Your task to perform on an android device: Open network settings Image 0: 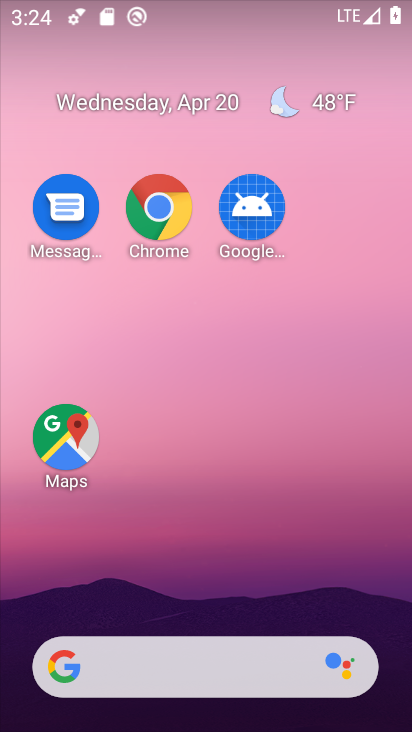
Step 0: drag from (337, 383) to (338, 338)
Your task to perform on an android device: Open network settings Image 1: 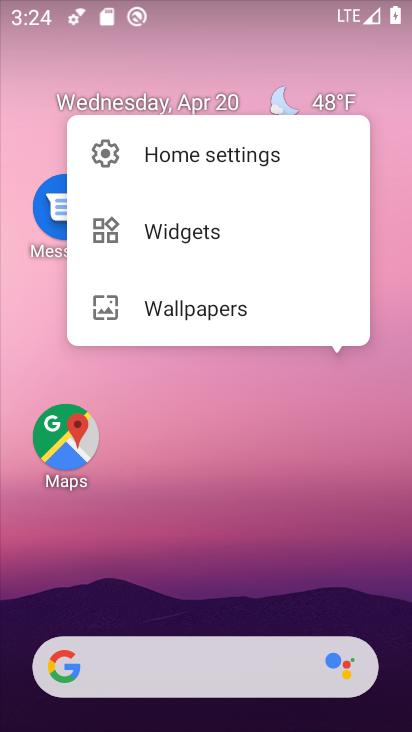
Step 1: click (307, 572)
Your task to perform on an android device: Open network settings Image 2: 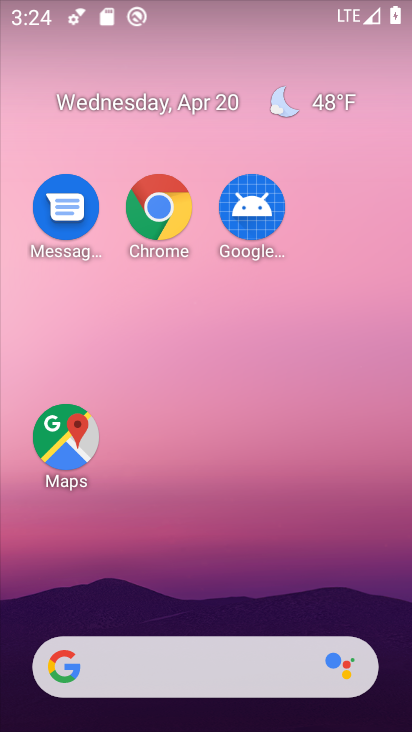
Step 2: drag from (290, 616) to (290, 161)
Your task to perform on an android device: Open network settings Image 3: 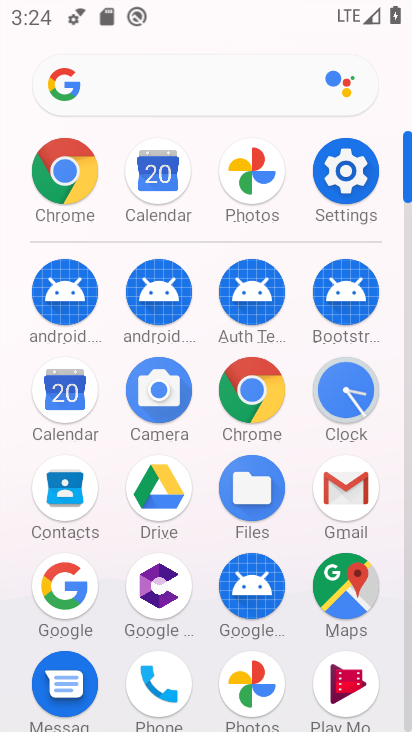
Step 3: drag from (252, 512) to (285, 133)
Your task to perform on an android device: Open network settings Image 4: 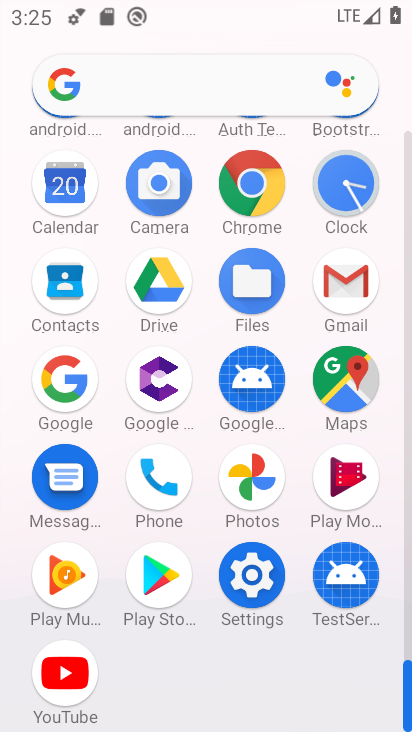
Step 4: click (406, 175)
Your task to perform on an android device: Open network settings Image 5: 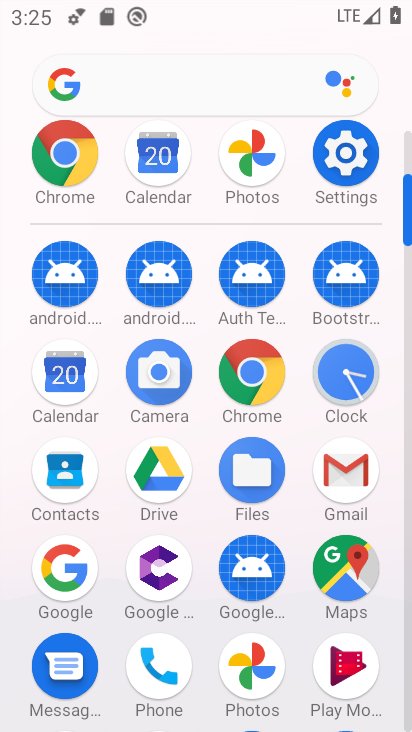
Step 5: click (351, 161)
Your task to perform on an android device: Open network settings Image 6: 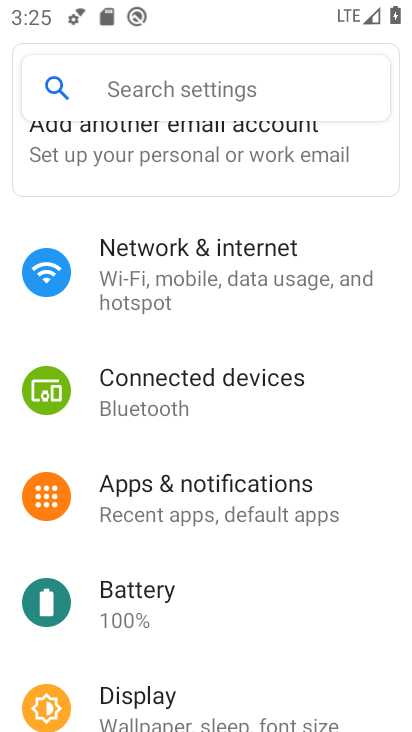
Step 6: click (262, 295)
Your task to perform on an android device: Open network settings Image 7: 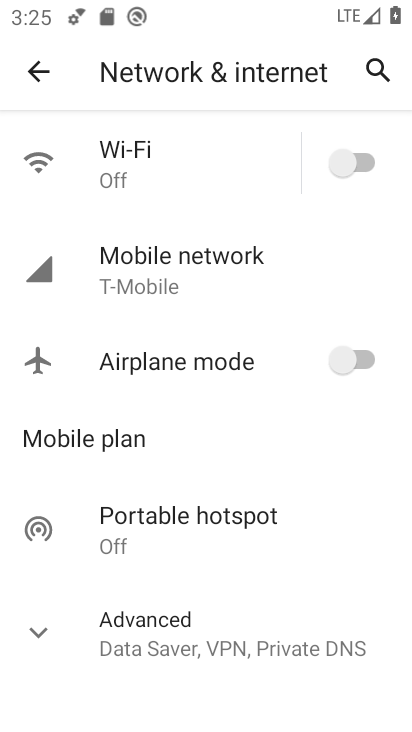
Step 7: click (248, 283)
Your task to perform on an android device: Open network settings Image 8: 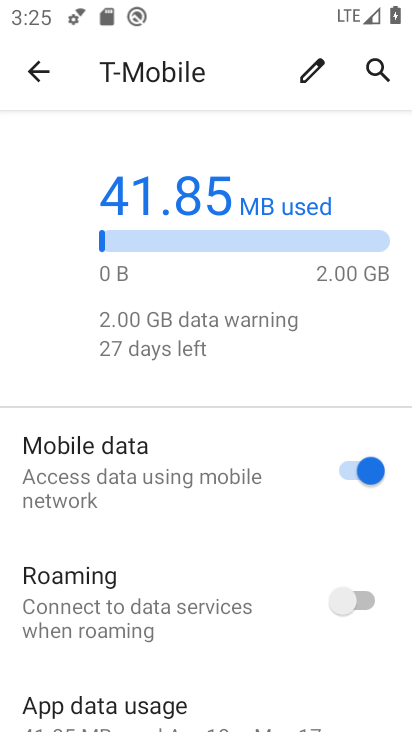
Step 8: task complete